Your task to perform on an android device: Open calendar and show me the fourth week of next month Image 0: 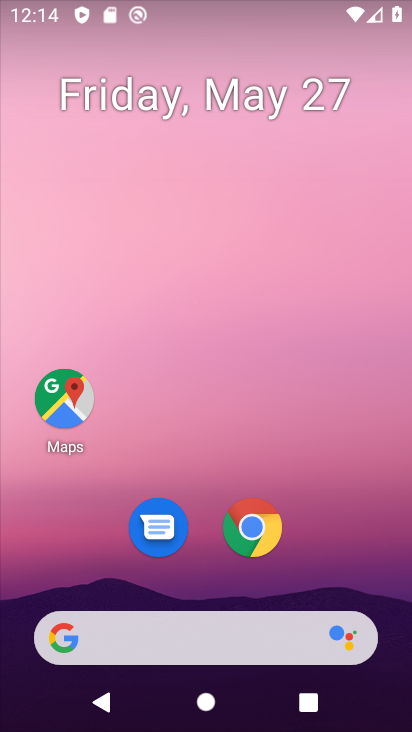
Step 0: drag from (156, 686) to (156, 49)
Your task to perform on an android device: Open calendar and show me the fourth week of next month Image 1: 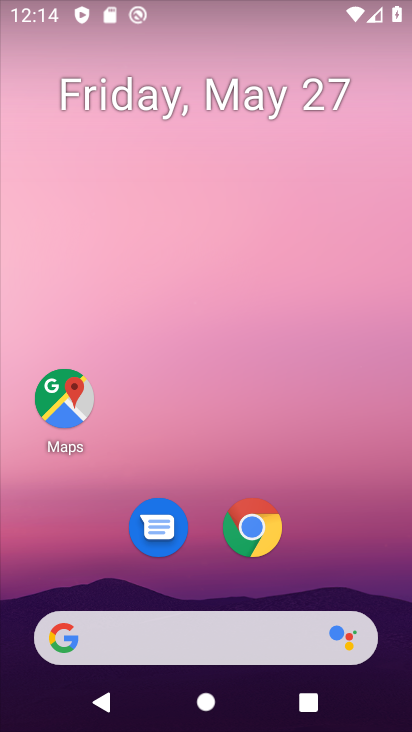
Step 1: drag from (245, 685) to (157, 154)
Your task to perform on an android device: Open calendar and show me the fourth week of next month Image 2: 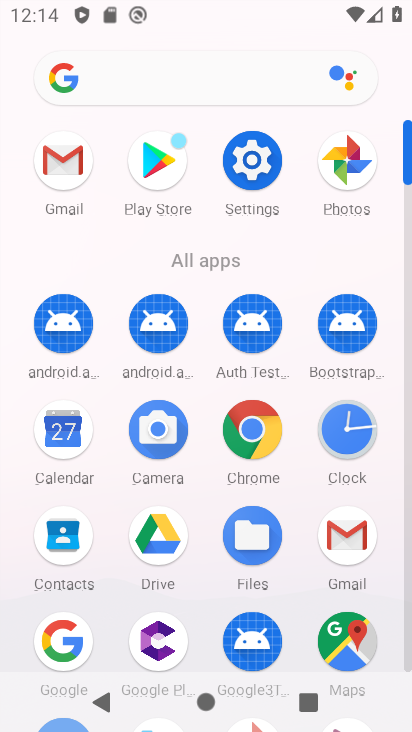
Step 2: click (46, 420)
Your task to perform on an android device: Open calendar and show me the fourth week of next month Image 3: 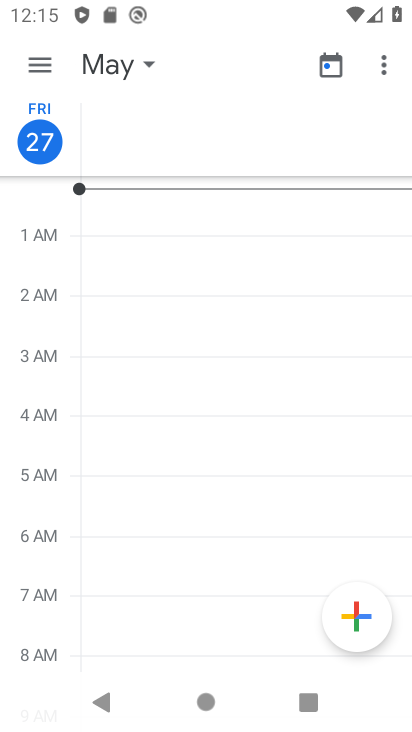
Step 3: click (106, 67)
Your task to perform on an android device: Open calendar and show me the fourth week of next month Image 4: 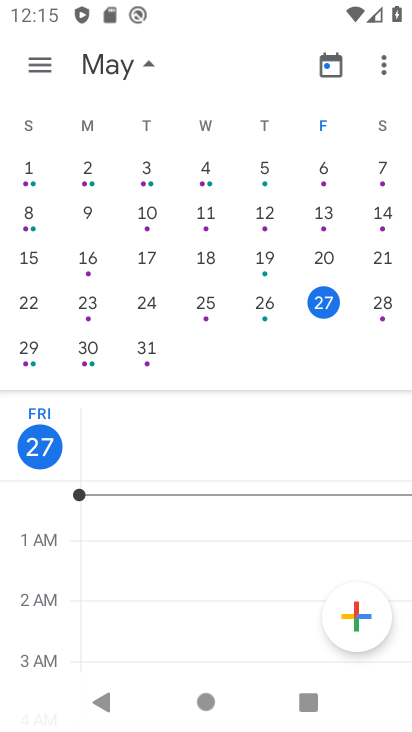
Step 4: drag from (348, 226) to (7, 253)
Your task to perform on an android device: Open calendar and show me the fourth week of next month Image 5: 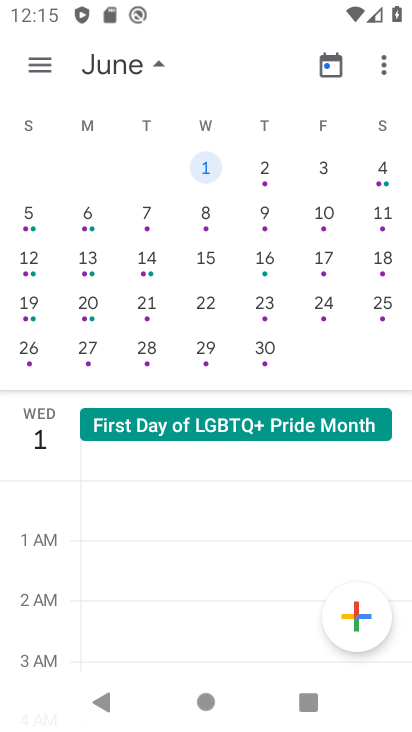
Step 5: click (33, 303)
Your task to perform on an android device: Open calendar and show me the fourth week of next month Image 6: 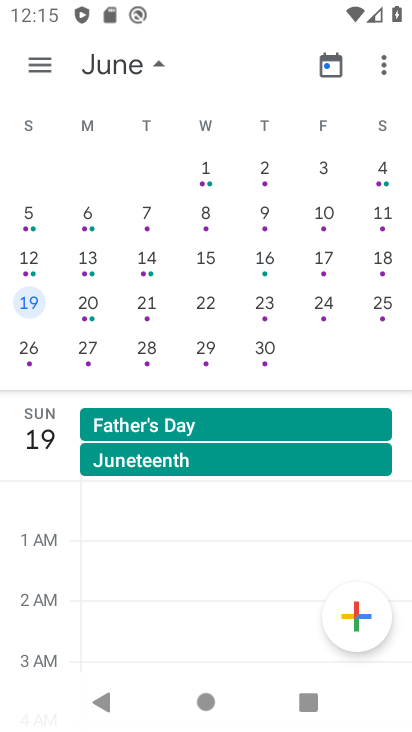
Step 6: task complete